Your task to perform on an android device: Search for seafood restaurants on Google Maps Image 0: 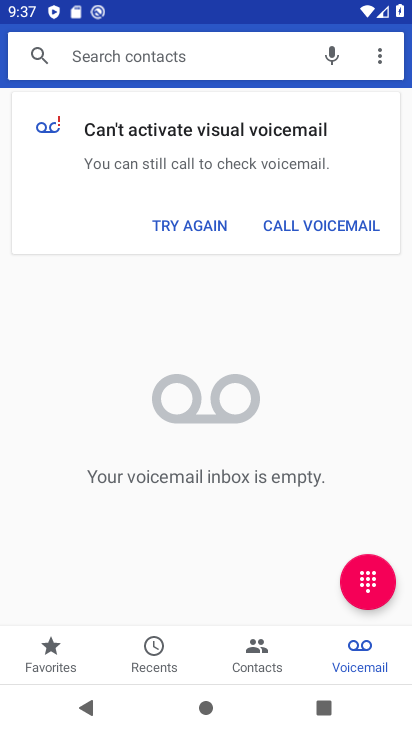
Step 0: press home button
Your task to perform on an android device: Search for seafood restaurants on Google Maps Image 1: 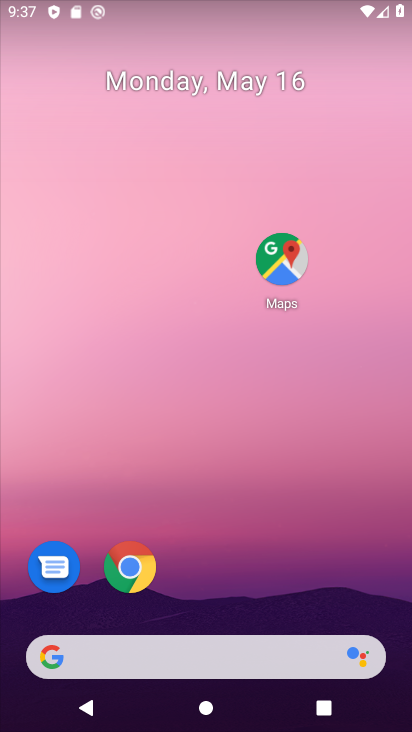
Step 1: click (291, 248)
Your task to perform on an android device: Search for seafood restaurants on Google Maps Image 2: 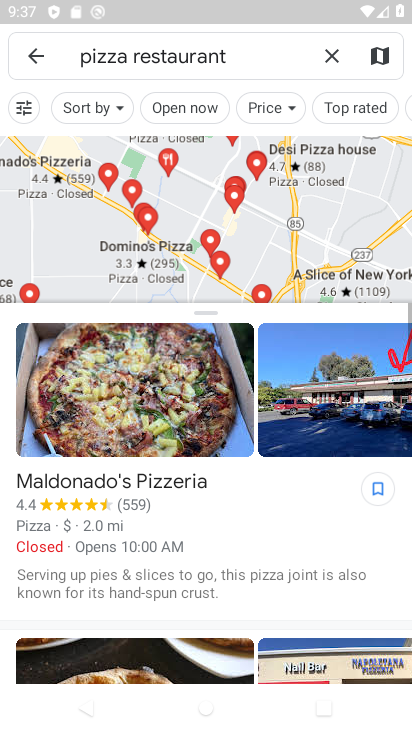
Step 2: click (299, 42)
Your task to perform on an android device: Search for seafood restaurants on Google Maps Image 3: 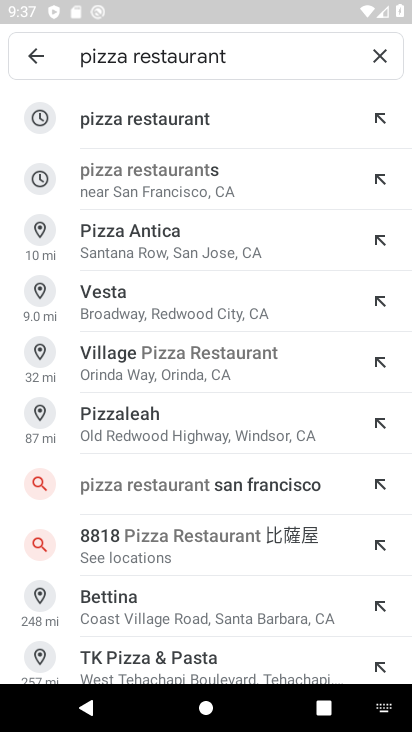
Step 3: click (383, 54)
Your task to perform on an android device: Search for seafood restaurants on Google Maps Image 4: 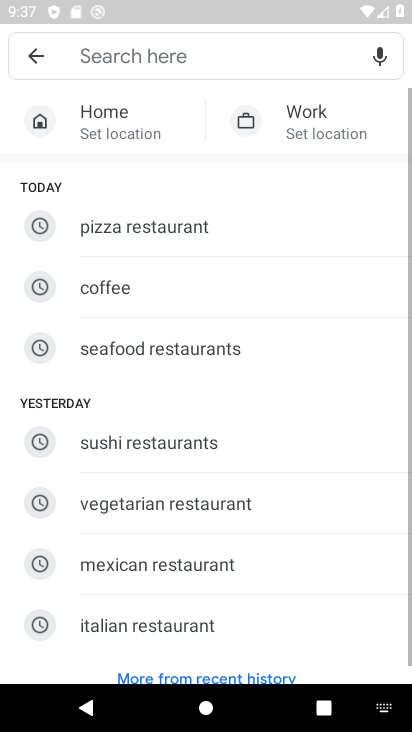
Step 4: click (181, 347)
Your task to perform on an android device: Search for seafood restaurants on Google Maps Image 5: 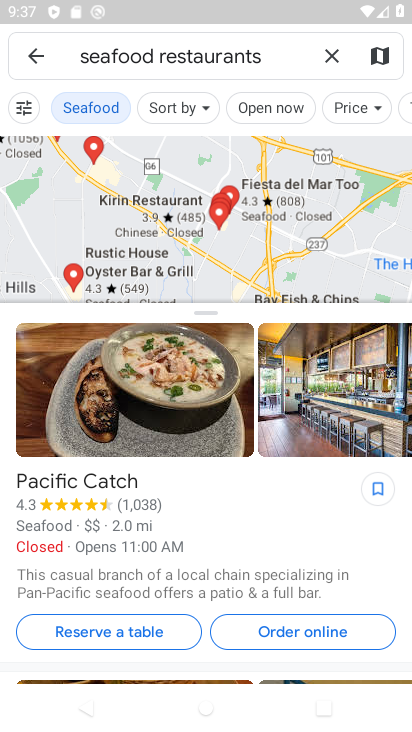
Step 5: task complete